Your task to perform on an android device: Go to Yahoo.com Image 0: 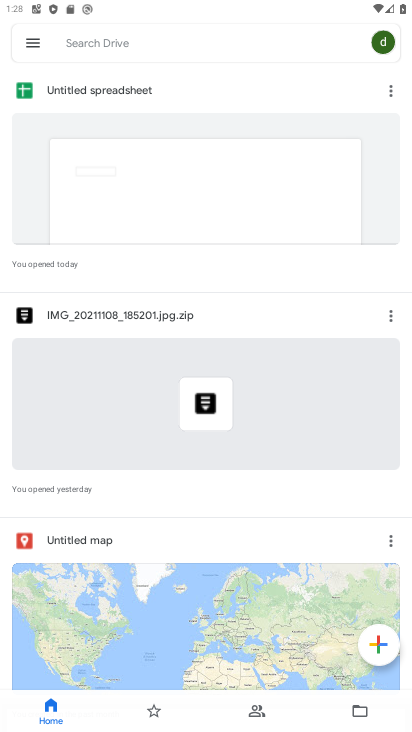
Step 0: press home button
Your task to perform on an android device: Go to Yahoo.com Image 1: 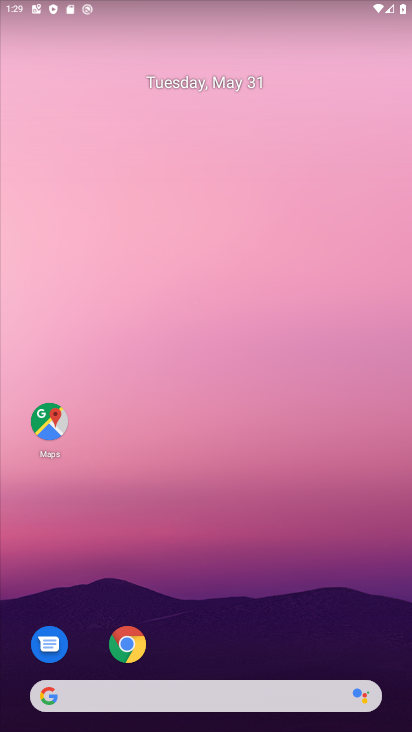
Step 1: click (127, 645)
Your task to perform on an android device: Go to Yahoo.com Image 2: 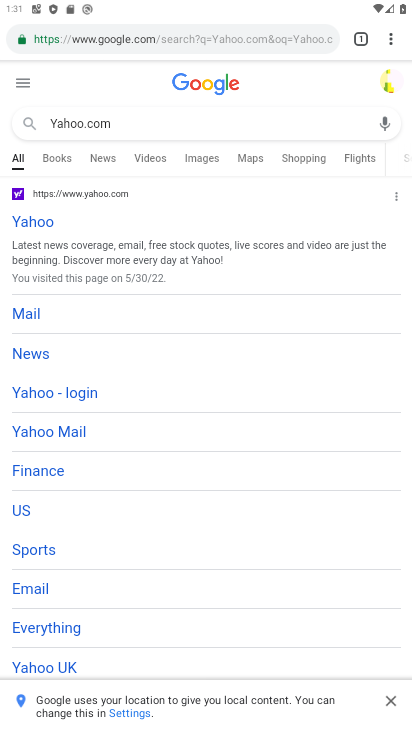
Step 2: task complete